Your task to perform on an android device: Open CNN.com Image 0: 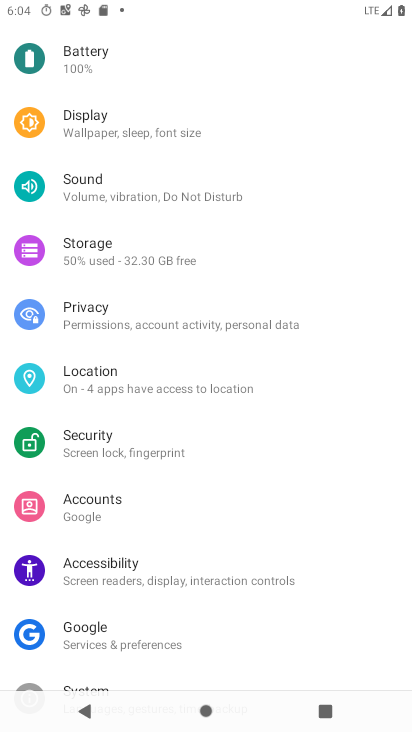
Step 0: press home button
Your task to perform on an android device: Open CNN.com Image 1: 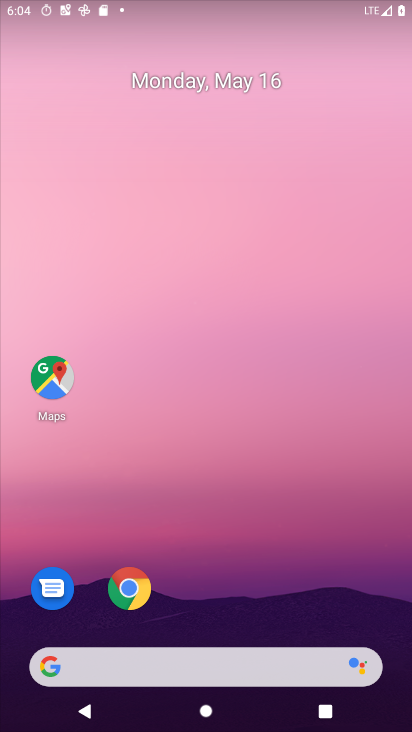
Step 1: drag from (265, 584) to (214, 9)
Your task to perform on an android device: Open CNN.com Image 2: 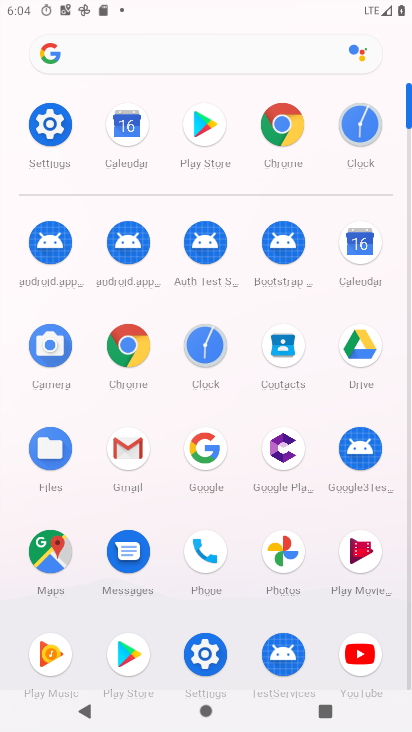
Step 2: click (279, 139)
Your task to perform on an android device: Open CNN.com Image 3: 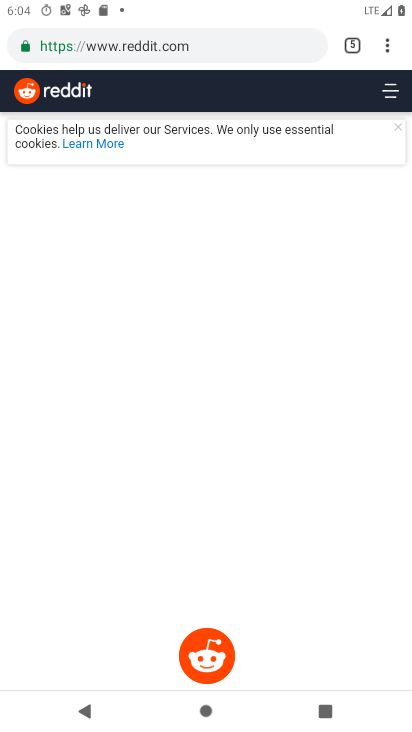
Step 3: click (347, 31)
Your task to perform on an android device: Open CNN.com Image 4: 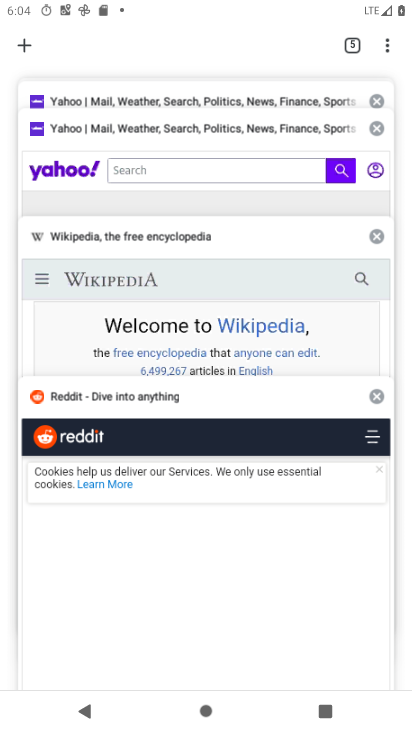
Step 4: click (27, 37)
Your task to perform on an android device: Open CNN.com Image 5: 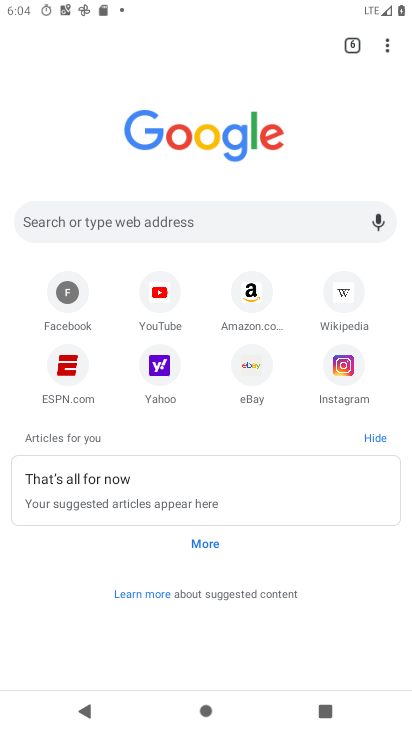
Step 5: click (241, 221)
Your task to perform on an android device: Open CNN.com Image 6: 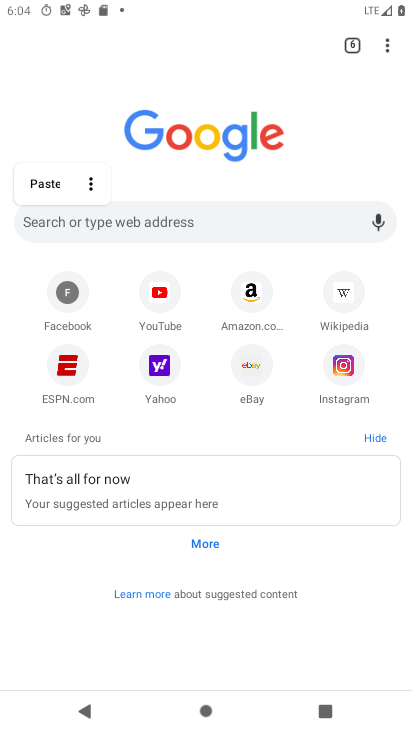
Step 6: type "CNN.com"
Your task to perform on an android device: Open CNN.com Image 7: 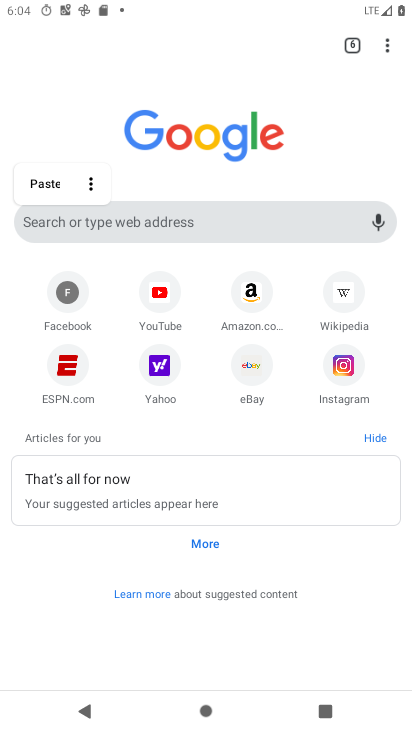
Step 7: click (165, 217)
Your task to perform on an android device: Open CNN.com Image 8: 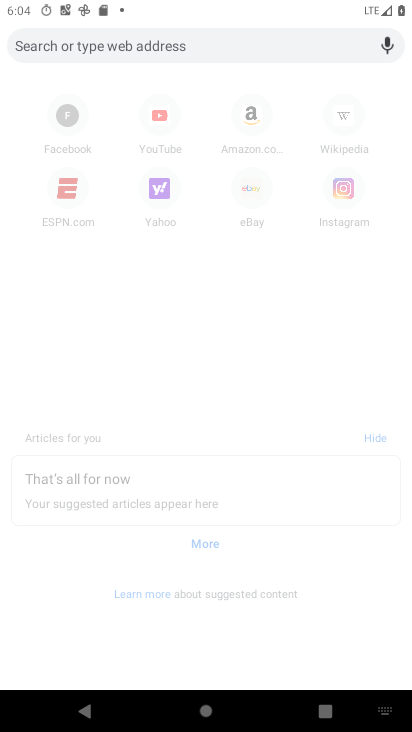
Step 8: type "CNN.com"
Your task to perform on an android device: Open CNN.com Image 9: 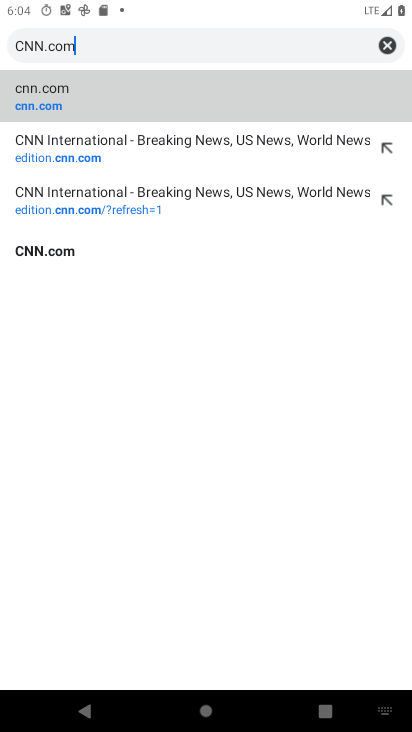
Step 9: click (75, 99)
Your task to perform on an android device: Open CNN.com Image 10: 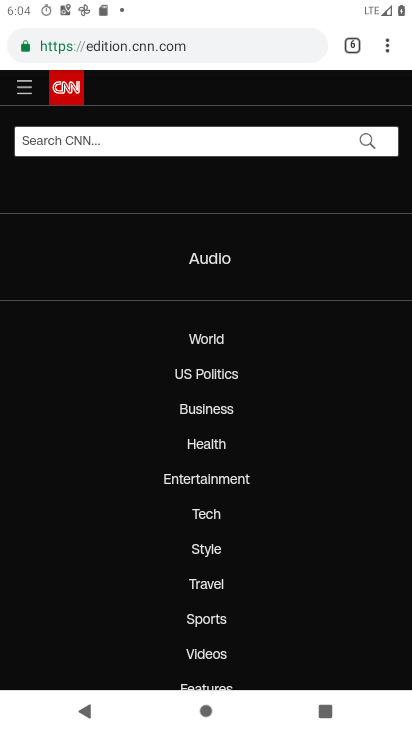
Step 10: task complete